Your task to perform on an android device: Open calendar and show me the second week of next month Image 0: 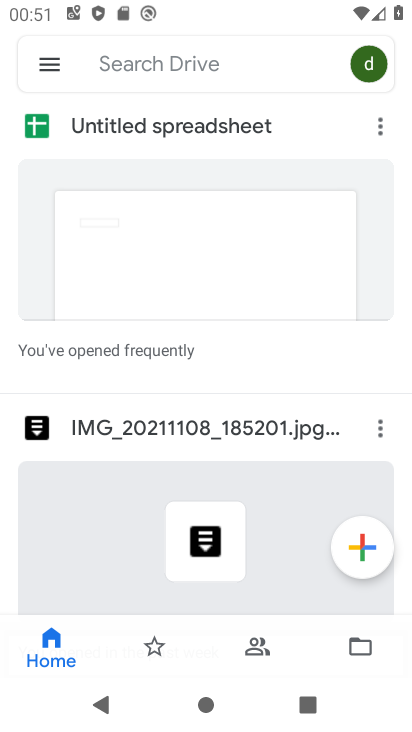
Step 0: press home button
Your task to perform on an android device: Open calendar and show me the second week of next month Image 1: 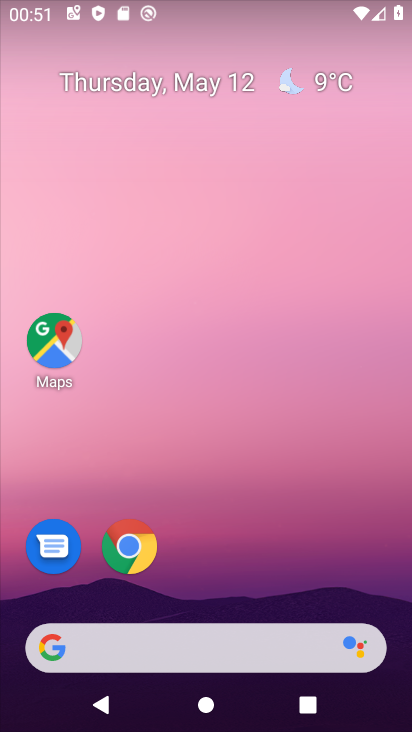
Step 1: drag from (123, 611) to (160, 181)
Your task to perform on an android device: Open calendar and show me the second week of next month Image 2: 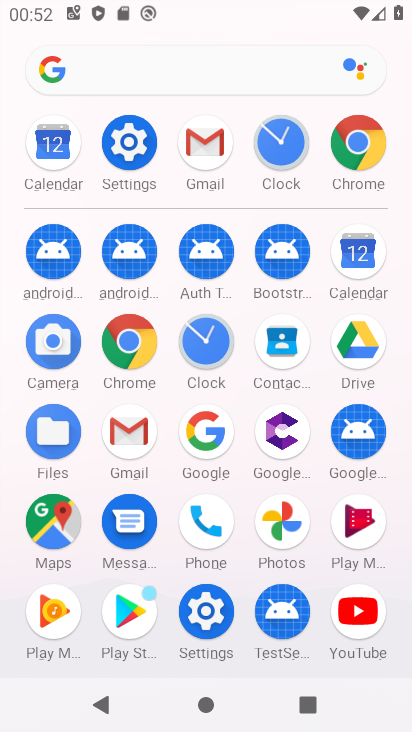
Step 2: click (355, 256)
Your task to perform on an android device: Open calendar and show me the second week of next month Image 3: 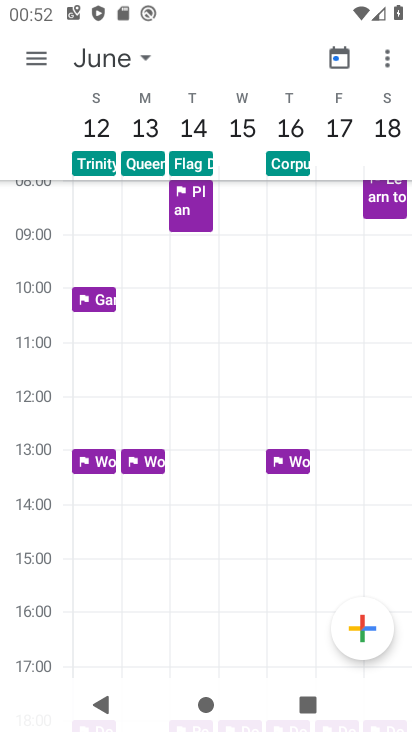
Step 3: click (124, 61)
Your task to perform on an android device: Open calendar and show me the second week of next month Image 4: 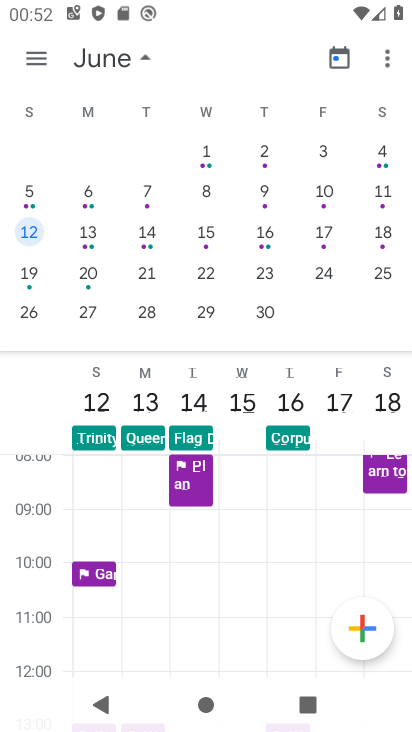
Step 4: click (206, 189)
Your task to perform on an android device: Open calendar and show me the second week of next month Image 5: 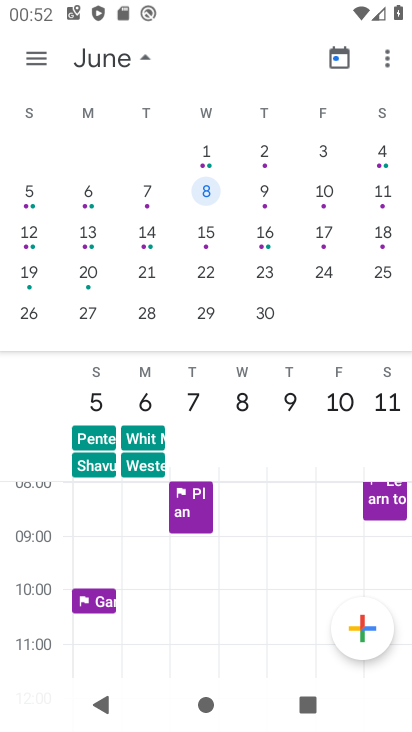
Step 5: click (261, 193)
Your task to perform on an android device: Open calendar and show me the second week of next month Image 6: 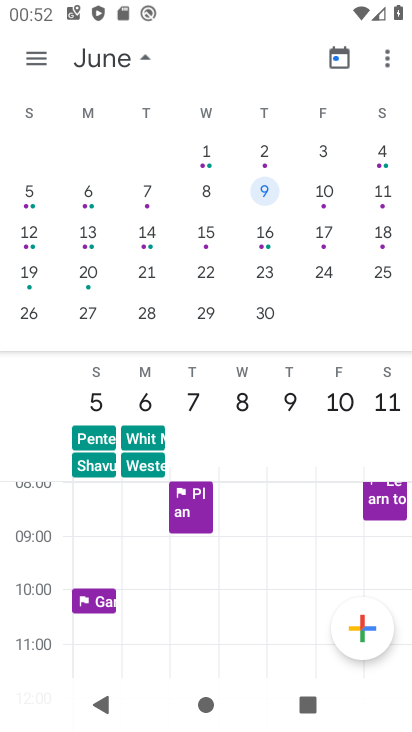
Step 6: click (194, 188)
Your task to perform on an android device: Open calendar and show me the second week of next month Image 7: 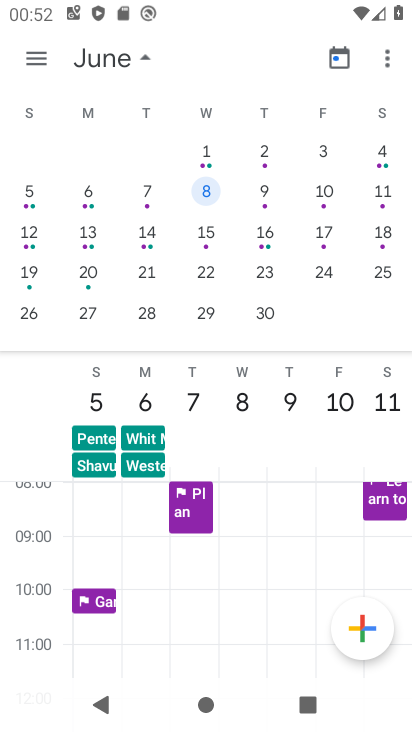
Step 7: click (40, 56)
Your task to perform on an android device: Open calendar and show me the second week of next month Image 8: 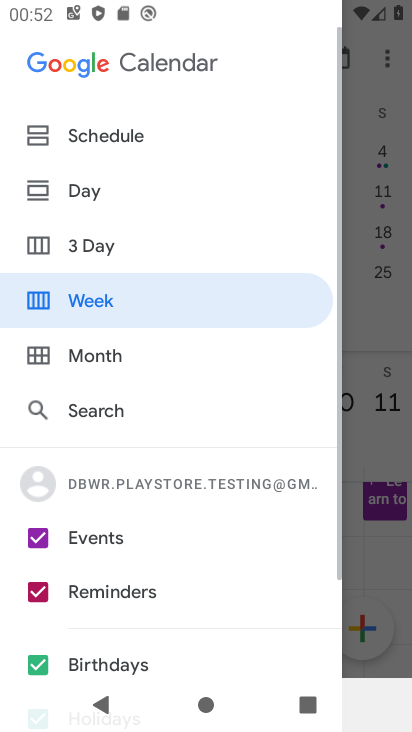
Step 8: click (108, 308)
Your task to perform on an android device: Open calendar and show me the second week of next month Image 9: 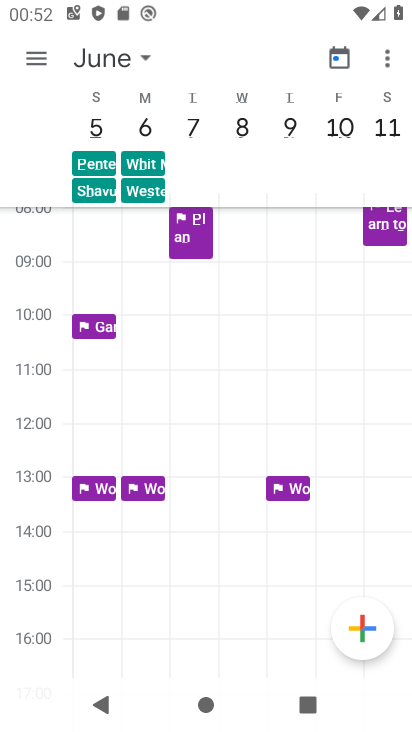
Step 9: task complete